Your task to perform on an android device: toggle pop-ups in chrome Image 0: 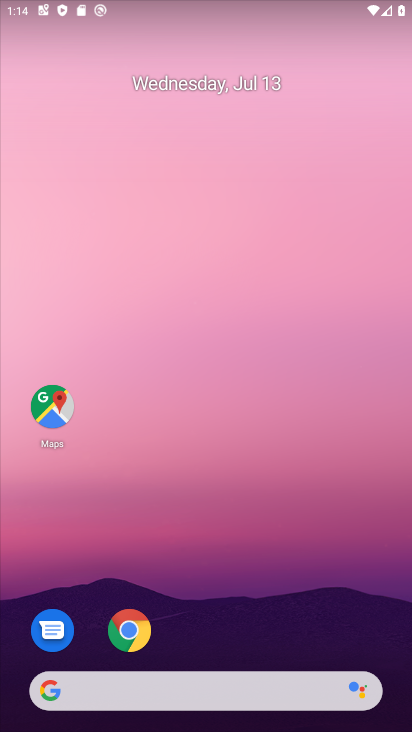
Step 0: drag from (369, 619) to (372, 104)
Your task to perform on an android device: toggle pop-ups in chrome Image 1: 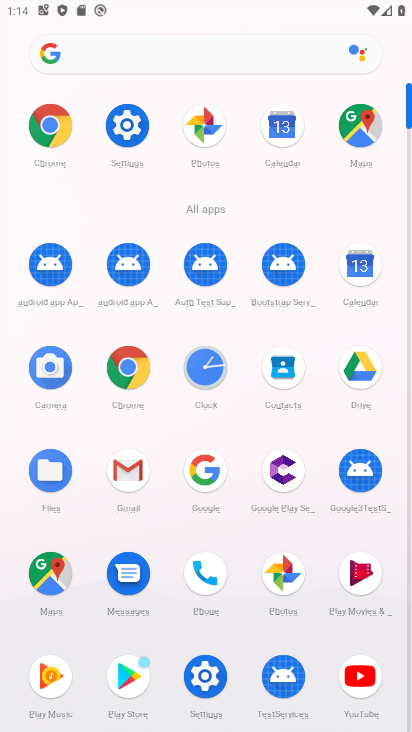
Step 1: click (136, 363)
Your task to perform on an android device: toggle pop-ups in chrome Image 2: 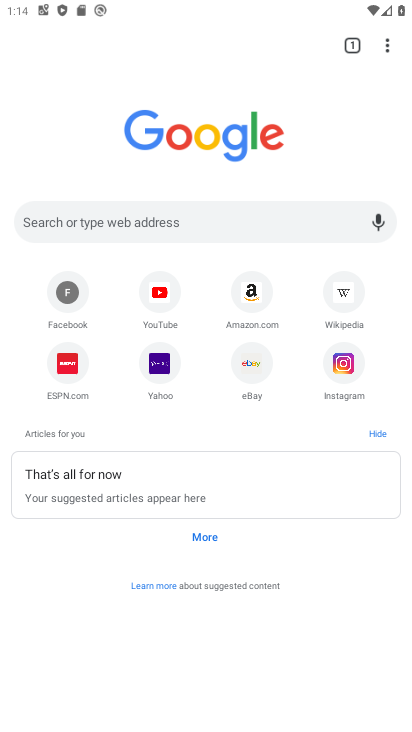
Step 2: click (386, 43)
Your task to perform on an android device: toggle pop-ups in chrome Image 3: 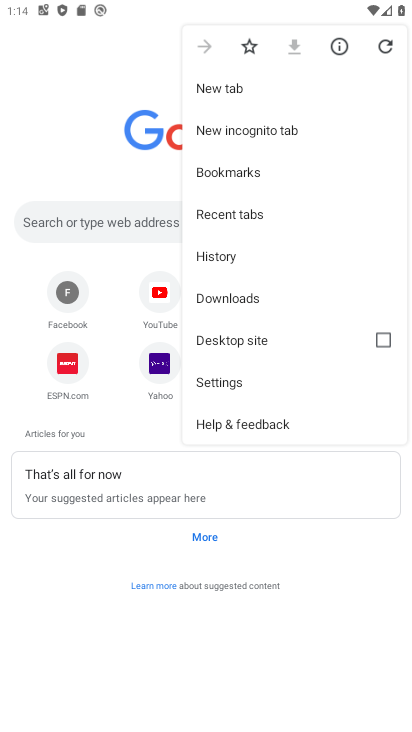
Step 3: click (282, 391)
Your task to perform on an android device: toggle pop-ups in chrome Image 4: 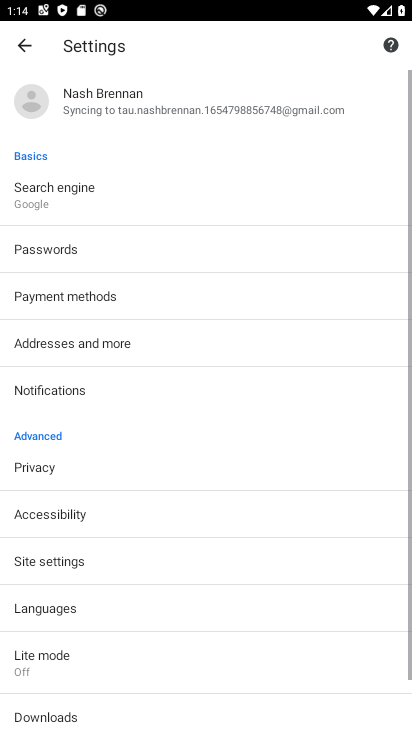
Step 4: drag from (288, 496) to (301, 386)
Your task to perform on an android device: toggle pop-ups in chrome Image 5: 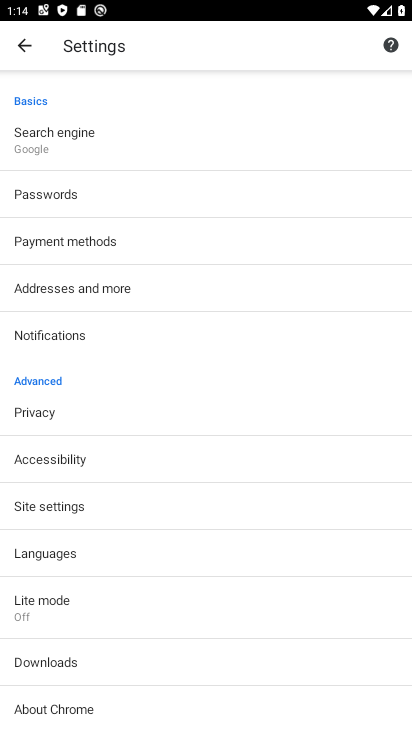
Step 5: drag from (325, 551) to (333, 397)
Your task to perform on an android device: toggle pop-ups in chrome Image 6: 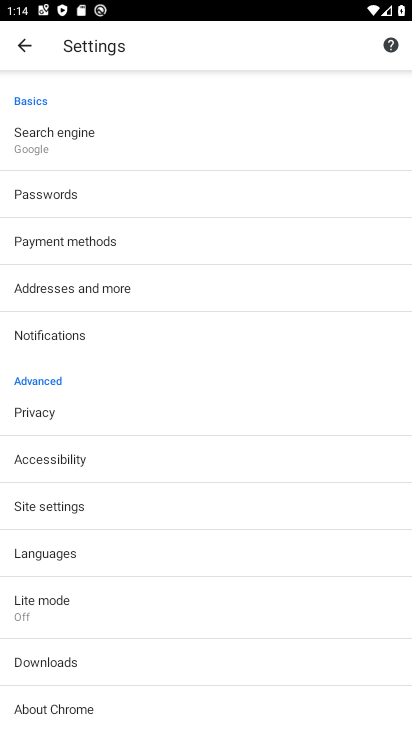
Step 6: click (272, 509)
Your task to perform on an android device: toggle pop-ups in chrome Image 7: 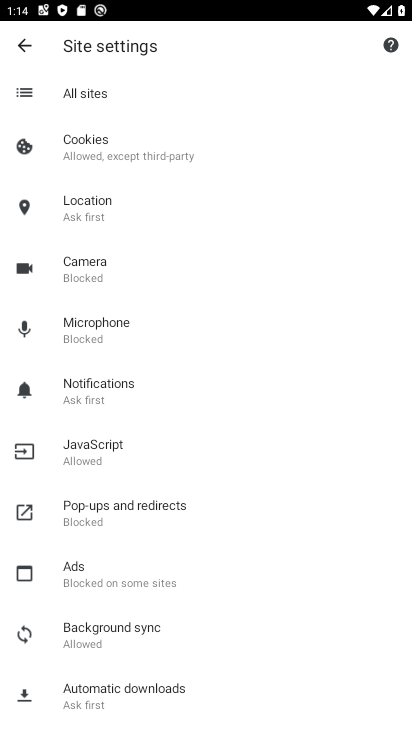
Step 7: drag from (333, 504) to (337, 324)
Your task to perform on an android device: toggle pop-ups in chrome Image 8: 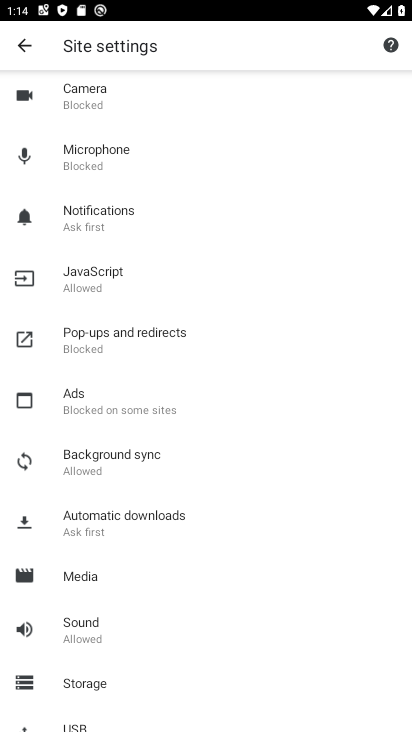
Step 8: drag from (325, 532) to (322, 279)
Your task to perform on an android device: toggle pop-ups in chrome Image 9: 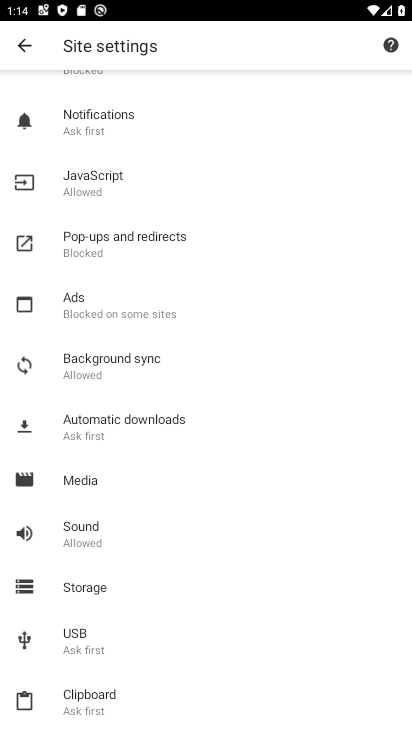
Step 9: drag from (294, 208) to (301, 563)
Your task to perform on an android device: toggle pop-ups in chrome Image 10: 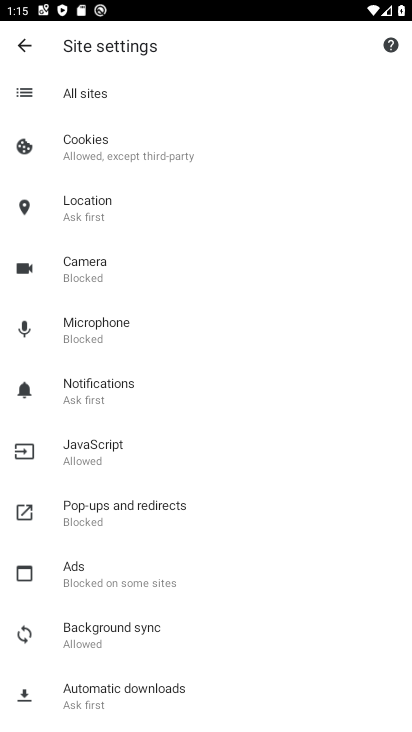
Step 10: click (199, 520)
Your task to perform on an android device: toggle pop-ups in chrome Image 11: 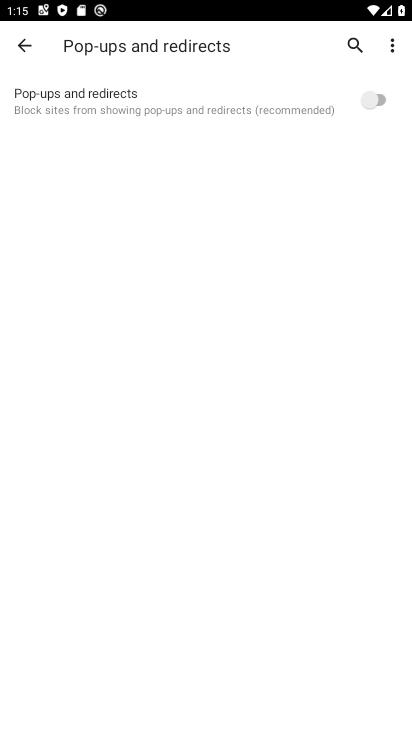
Step 11: click (373, 106)
Your task to perform on an android device: toggle pop-ups in chrome Image 12: 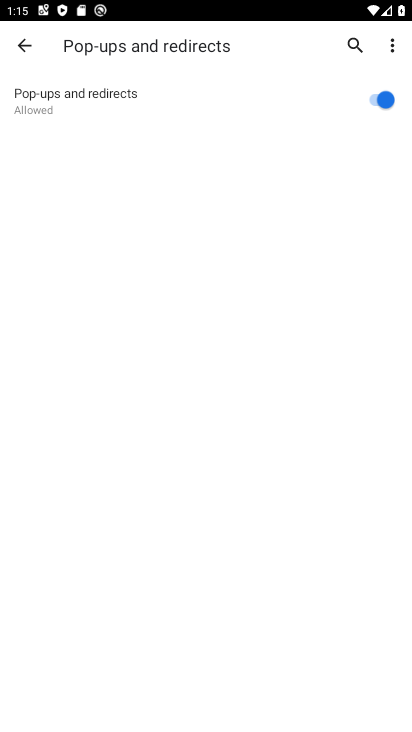
Step 12: task complete